Your task to perform on an android device: turn off improve location accuracy Image 0: 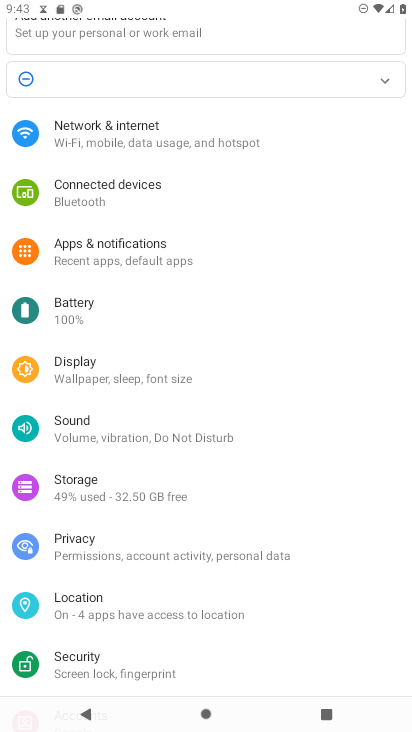
Step 0: press home button
Your task to perform on an android device: turn off improve location accuracy Image 1: 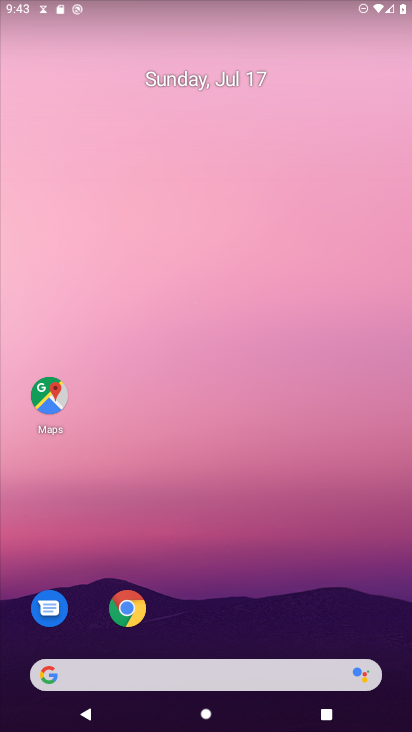
Step 1: drag from (181, 679) to (193, 162)
Your task to perform on an android device: turn off improve location accuracy Image 2: 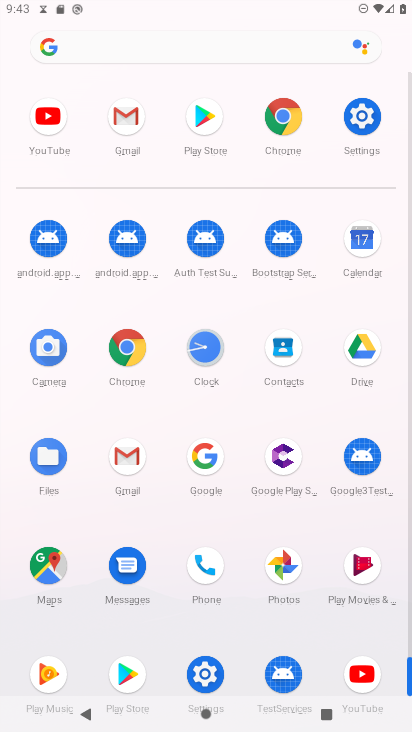
Step 2: click (360, 113)
Your task to perform on an android device: turn off improve location accuracy Image 3: 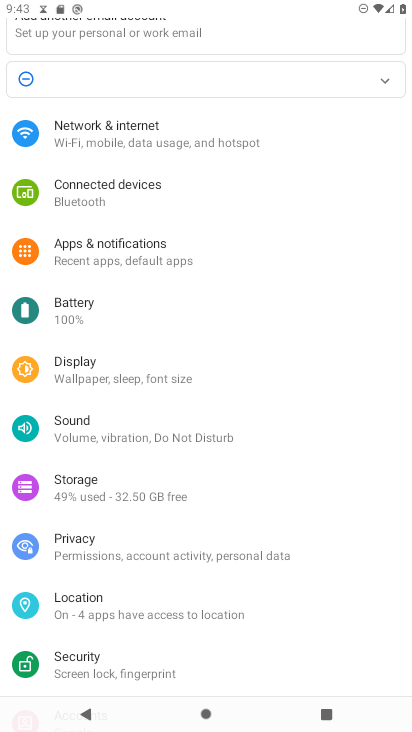
Step 3: drag from (94, 588) to (168, 476)
Your task to perform on an android device: turn off improve location accuracy Image 4: 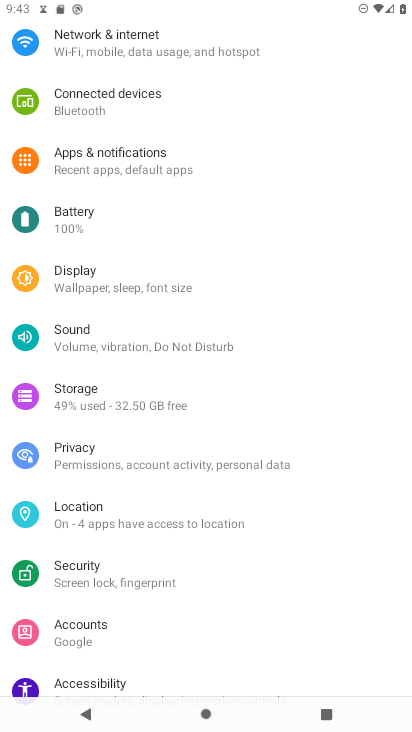
Step 4: click (158, 528)
Your task to perform on an android device: turn off improve location accuracy Image 5: 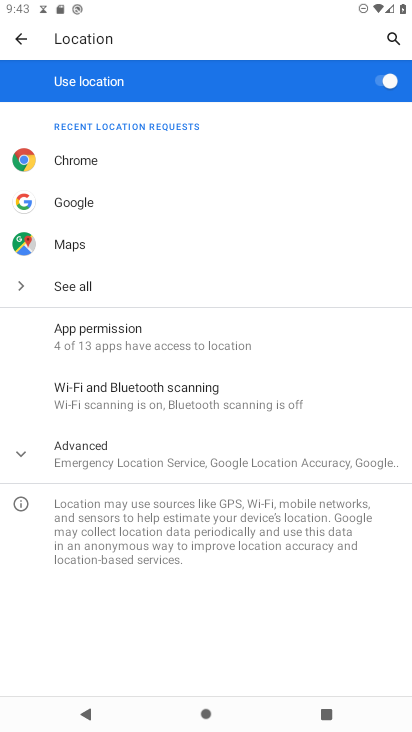
Step 5: click (185, 464)
Your task to perform on an android device: turn off improve location accuracy Image 6: 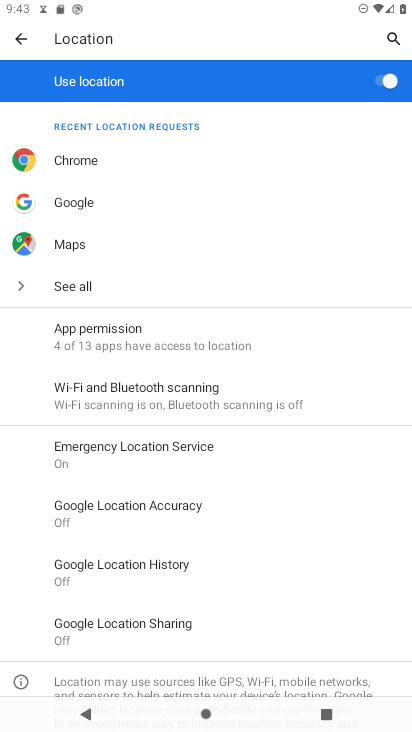
Step 6: click (200, 509)
Your task to perform on an android device: turn off improve location accuracy Image 7: 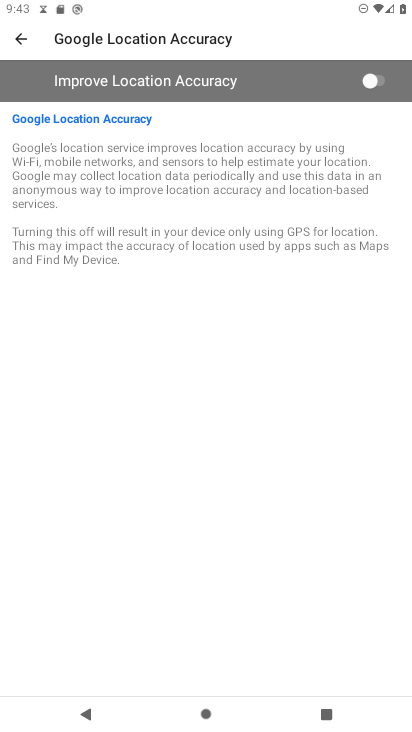
Step 7: task complete